Your task to perform on an android device: open a bookmark in the chrome app Image 0: 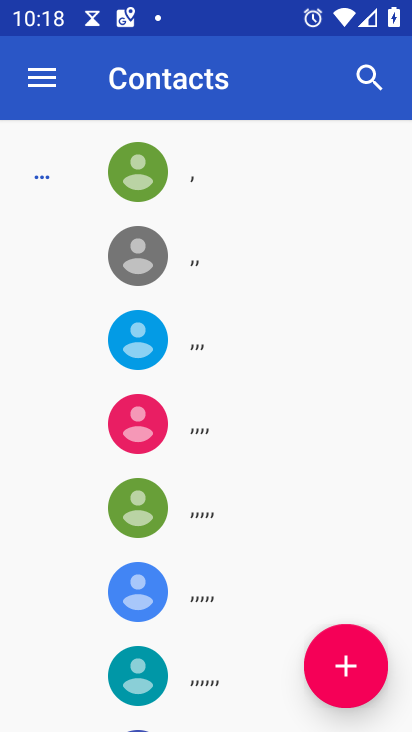
Step 0: press back button
Your task to perform on an android device: open a bookmark in the chrome app Image 1: 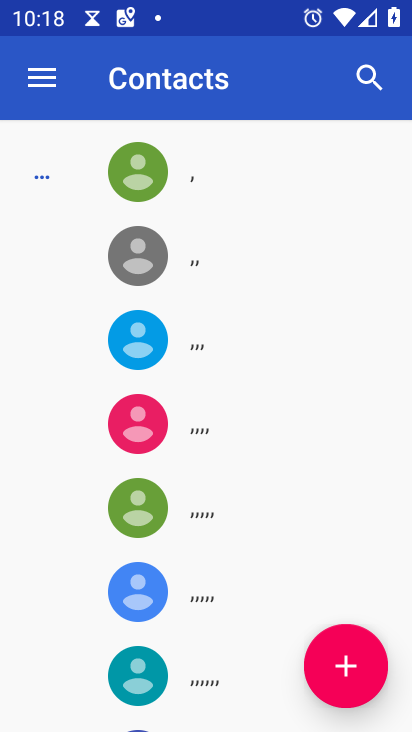
Step 1: press back button
Your task to perform on an android device: open a bookmark in the chrome app Image 2: 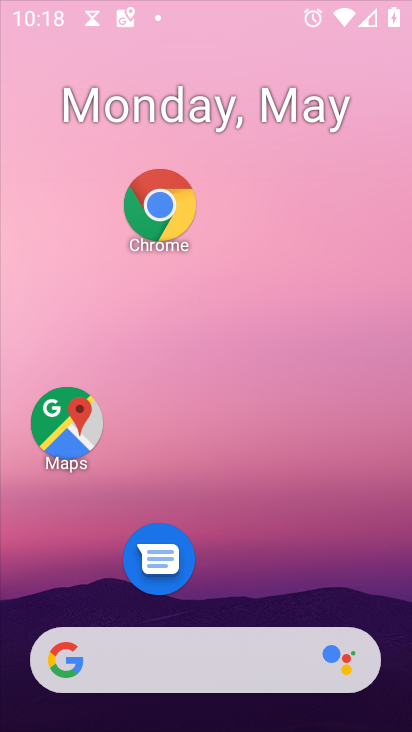
Step 2: press back button
Your task to perform on an android device: open a bookmark in the chrome app Image 3: 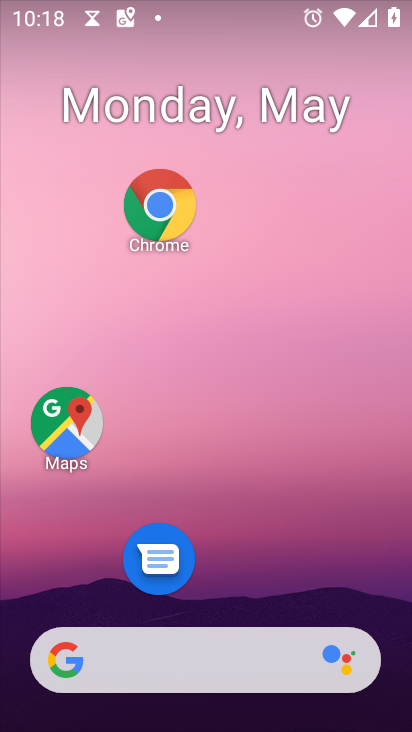
Step 3: drag from (278, 593) to (174, 156)
Your task to perform on an android device: open a bookmark in the chrome app Image 4: 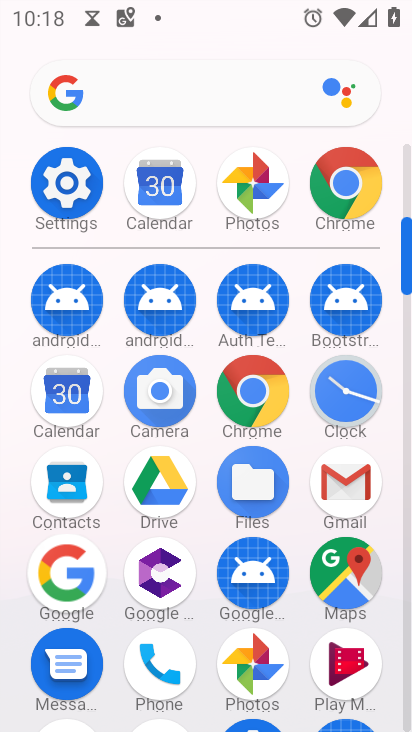
Step 4: click (352, 185)
Your task to perform on an android device: open a bookmark in the chrome app Image 5: 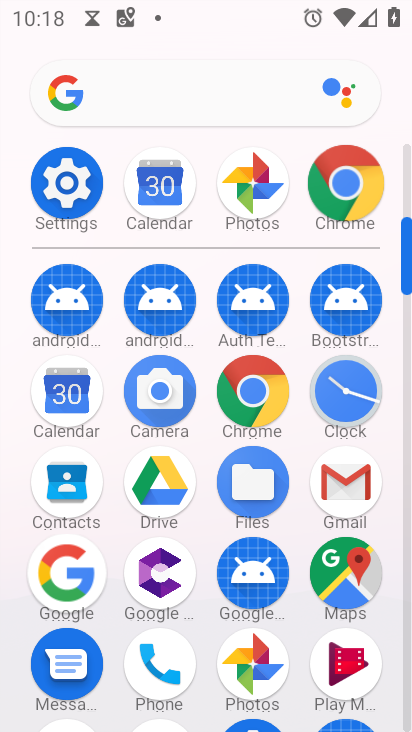
Step 5: click (352, 185)
Your task to perform on an android device: open a bookmark in the chrome app Image 6: 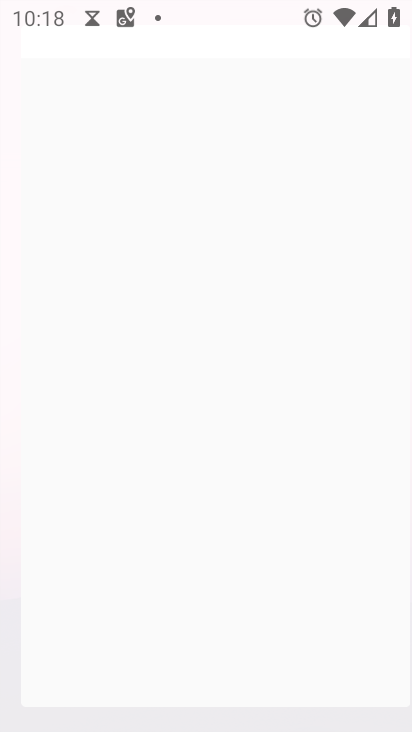
Step 6: click (352, 185)
Your task to perform on an android device: open a bookmark in the chrome app Image 7: 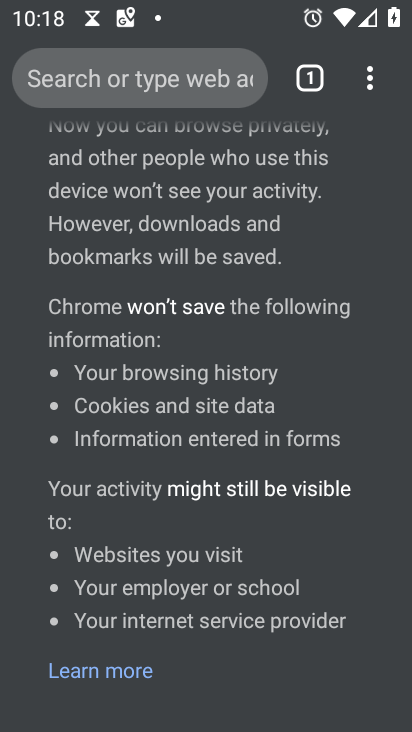
Step 7: drag from (366, 89) to (89, 310)
Your task to perform on an android device: open a bookmark in the chrome app Image 8: 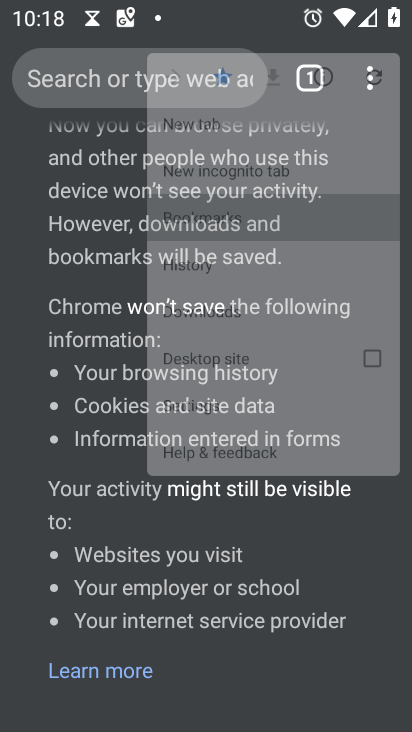
Step 8: click (91, 307)
Your task to perform on an android device: open a bookmark in the chrome app Image 9: 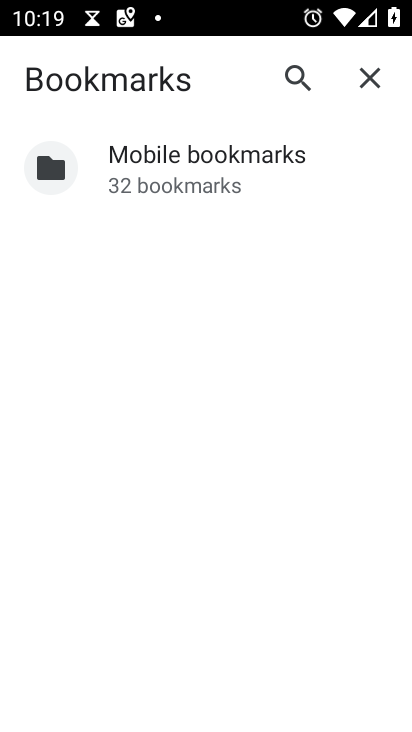
Step 9: click (187, 177)
Your task to perform on an android device: open a bookmark in the chrome app Image 10: 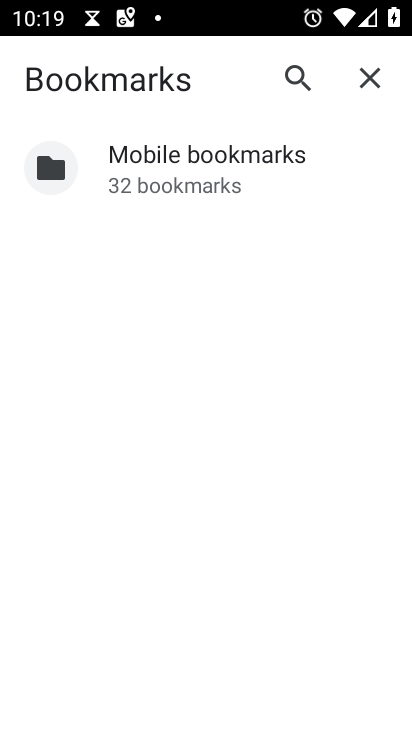
Step 10: click (187, 177)
Your task to perform on an android device: open a bookmark in the chrome app Image 11: 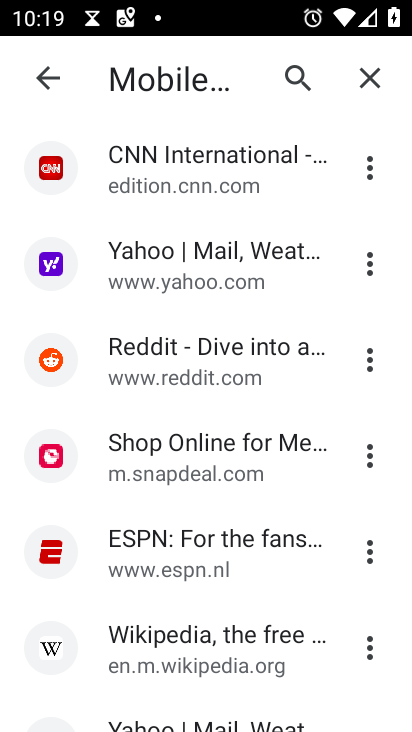
Step 11: click (187, 177)
Your task to perform on an android device: open a bookmark in the chrome app Image 12: 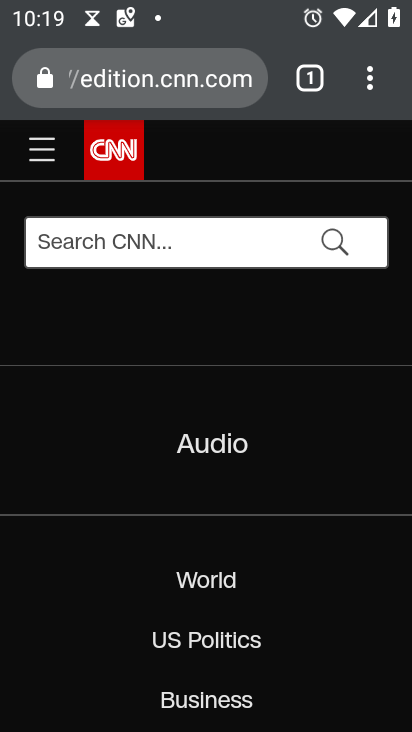
Step 12: task complete